Your task to perform on an android device: check the backup settings in the google photos Image 0: 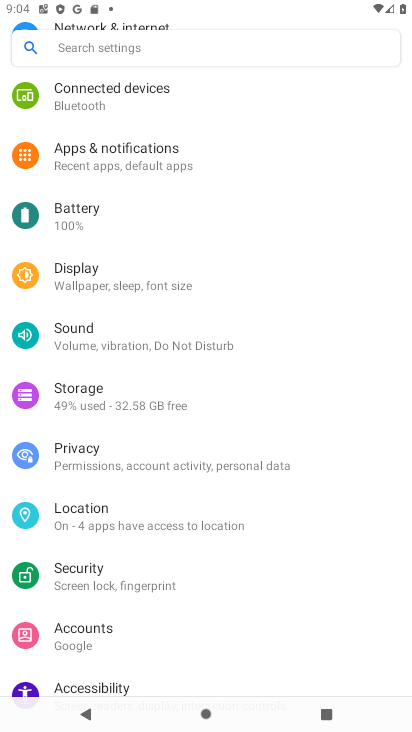
Step 0: press home button
Your task to perform on an android device: check the backup settings in the google photos Image 1: 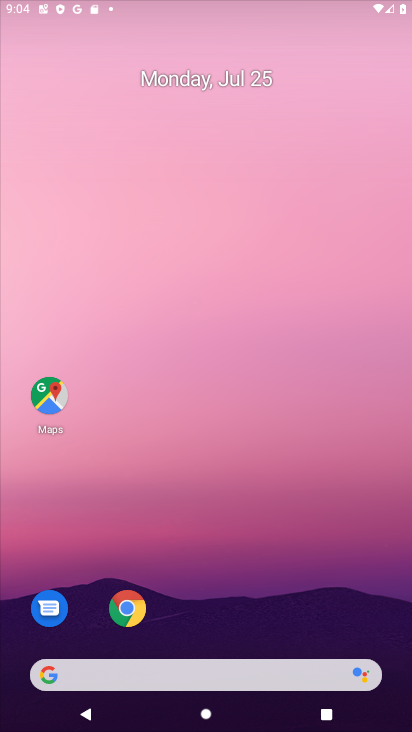
Step 1: drag from (160, 584) to (167, 210)
Your task to perform on an android device: check the backup settings in the google photos Image 2: 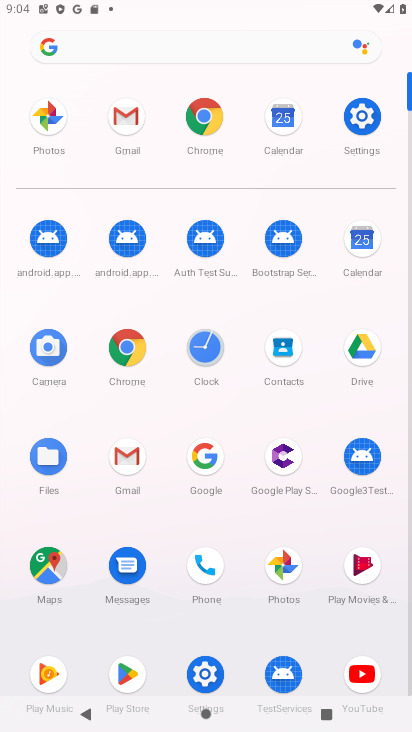
Step 2: click (46, 115)
Your task to perform on an android device: check the backup settings in the google photos Image 3: 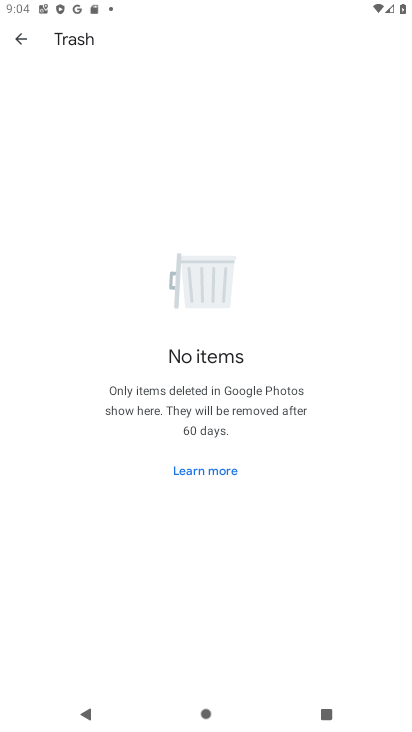
Step 3: click (23, 43)
Your task to perform on an android device: check the backup settings in the google photos Image 4: 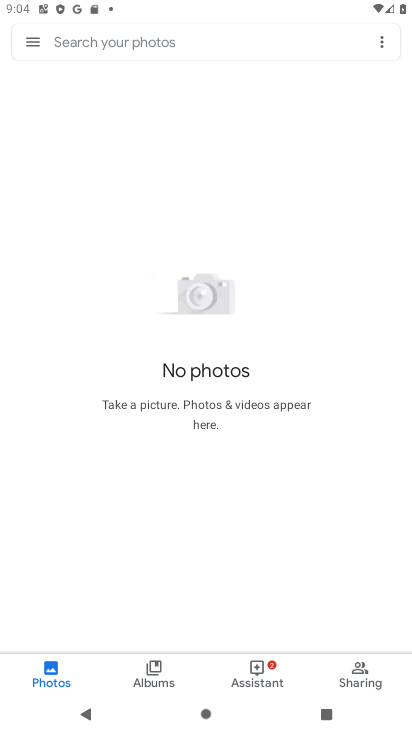
Step 4: click (42, 50)
Your task to perform on an android device: check the backup settings in the google photos Image 5: 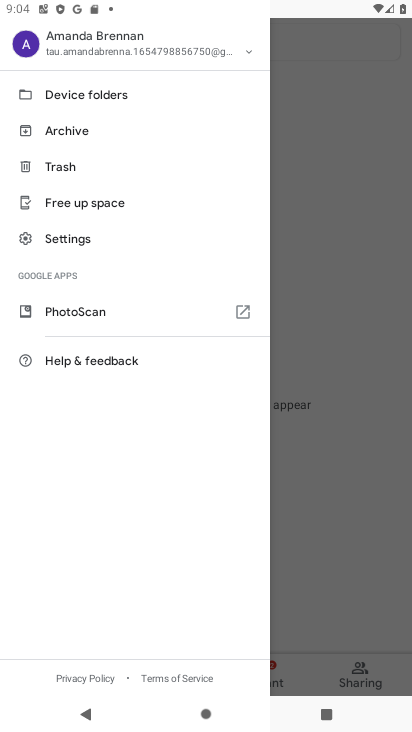
Step 5: click (66, 227)
Your task to perform on an android device: check the backup settings in the google photos Image 6: 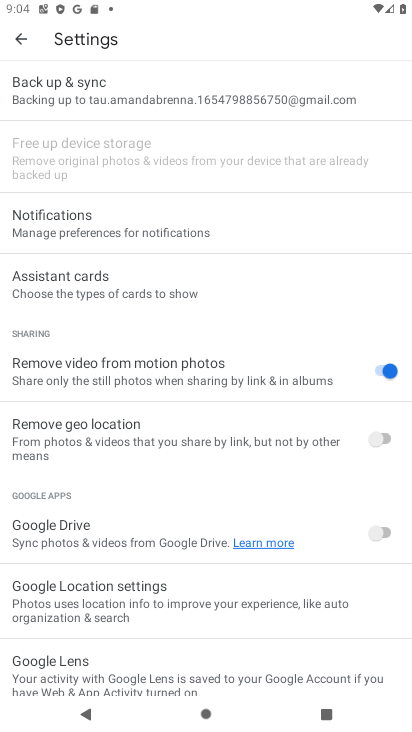
Step 6: click (91, 87)
Your task to perform on an android device: check the backup settings in the google photos Image 7: 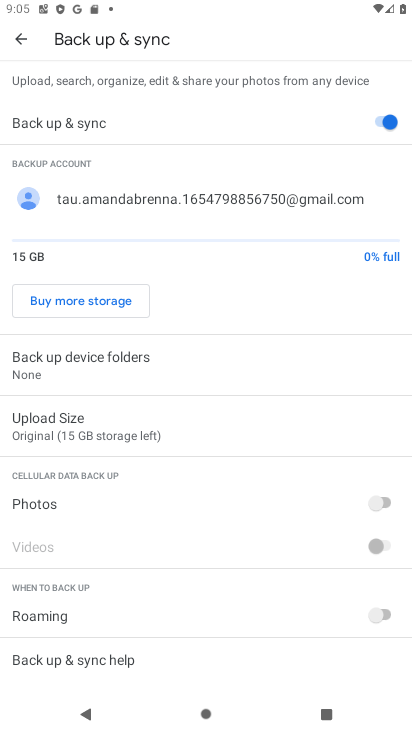
Step 7: task complete